Your task to perform on an android device: see creations saved in the google photos Image 0: 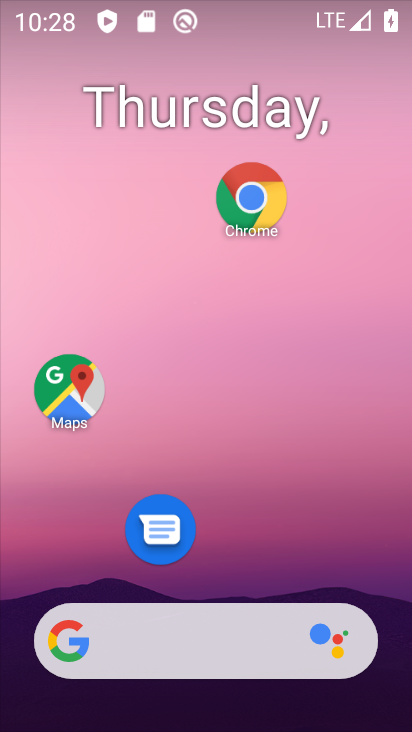
Step 0: drag from (222, 581) to (222, 133)
Your task to perform on an android device: see creations saved in the google photos Image 1: 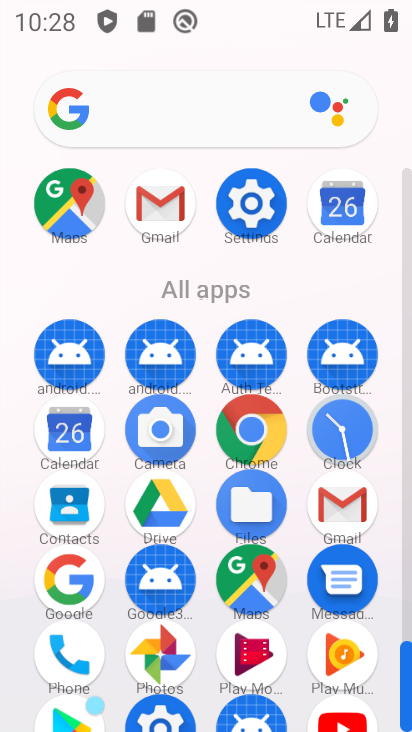
Step 1: click (161, 649)
Your task to perform on an android device: see creations saved in the google photos Image 2: 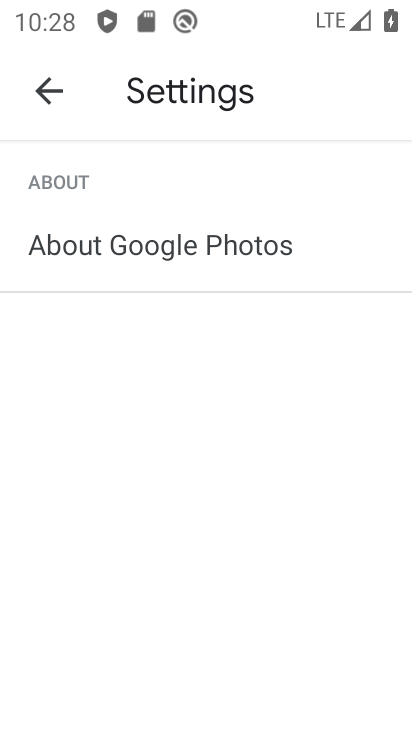
Step 2: click (49, 92)
Your task to perform on an android device: see creations saved in the google photos Image 3: 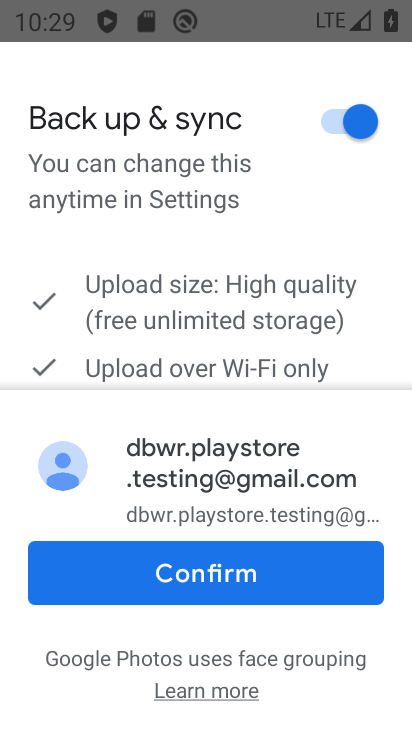
Step 3: click (225, 589)
Your task to perform on an android device: see creations saved in the google photos Image 4: 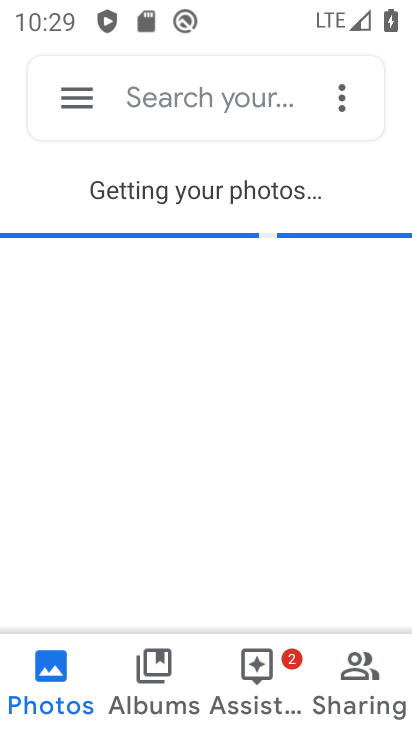
Step 4: click (184, 100)
Your task to perform on an android device: see creations saved in the google photos Image 5: 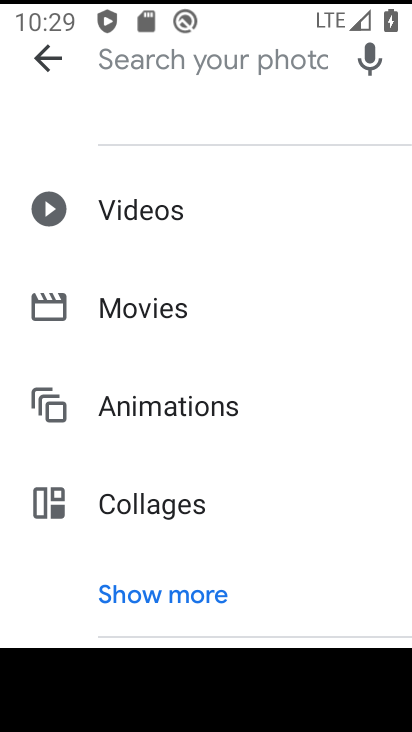
Step 5: click (149, 607)
Your task to perform on an android device: see creations saved in the google photos Image 6: 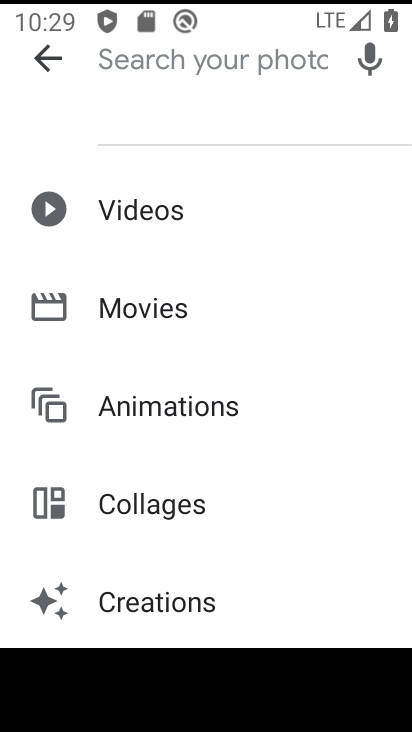
Step 6: click (145, 607)
Your task to perform on an android device: see creations saved in the google photos Image 7: 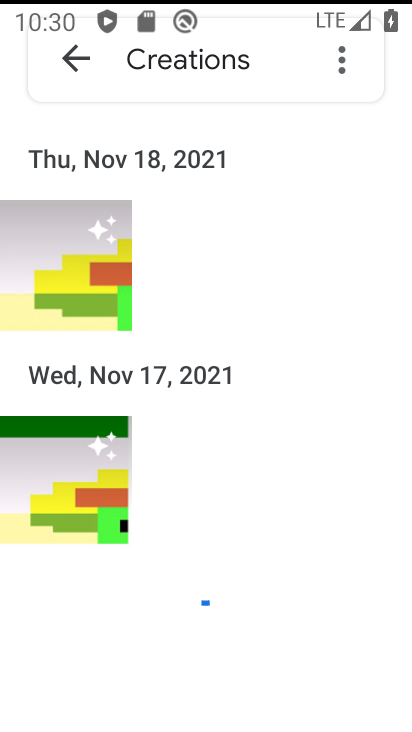
Step 7: task complete